Your task to perform on an android device: all mails in gmail Image 0: 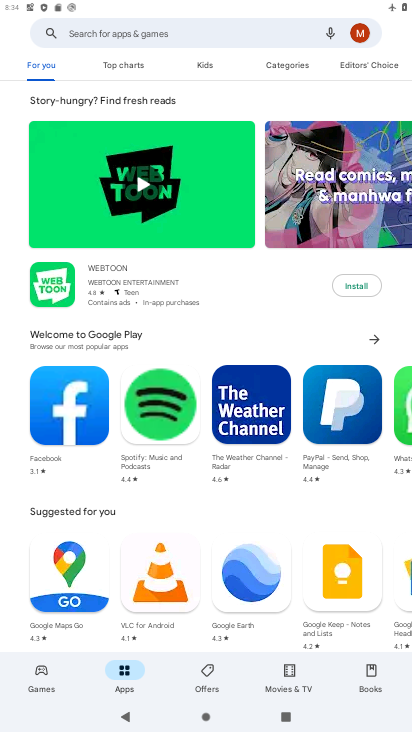
Step 0: press home button
Your task to perform on an android device: all mails in gmail Image 1: 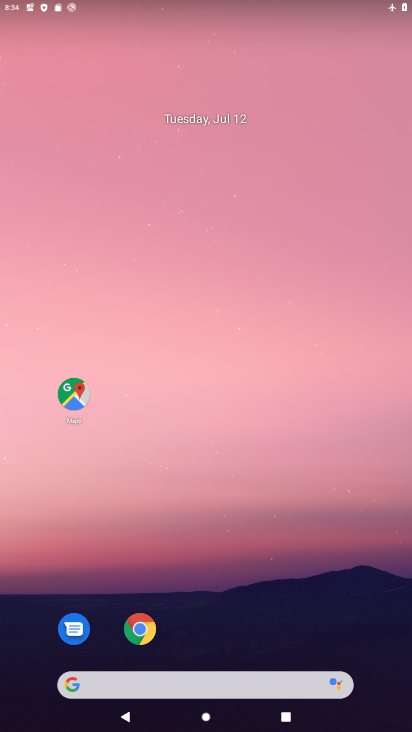
Step 1: drag from (225, 648) to (241, 273)
Your task to perform on an android device: all mails in gmail Image 2: 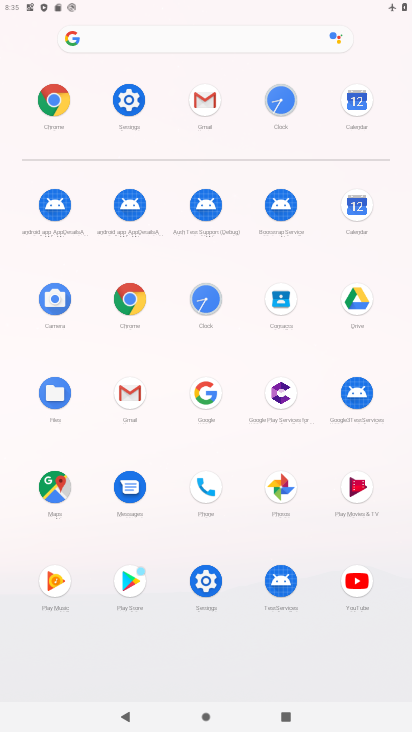
Step 2: click (213, 99)
Your task to perform on an android device: all mails in gmail Image 3: 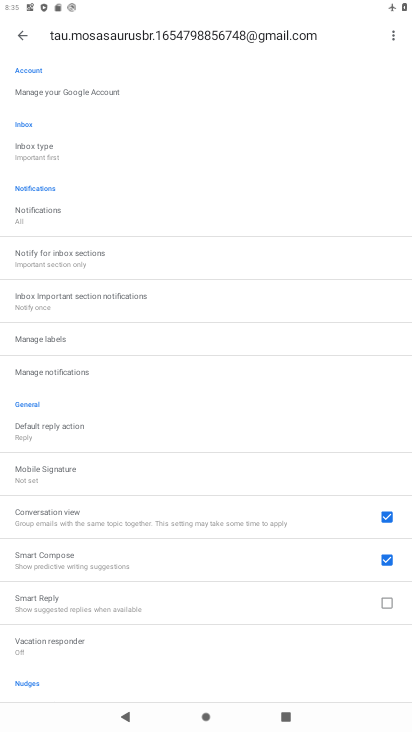
Step 3: click (28, 29)
Your task to perform on an android device: all mails in gmail Image 4: 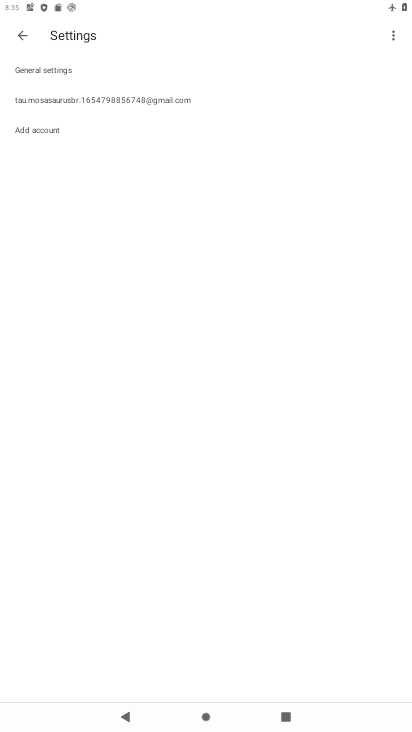
Step 4: click (21, 33)
Your task to perform on an android device: all mails in gmail Image 5: 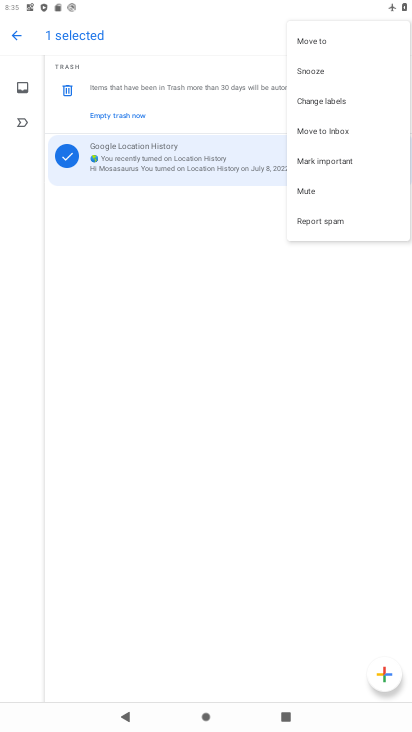
Step 5: click (97, 221)
Your task to perform on an android device: all mails in gmail Image 6: 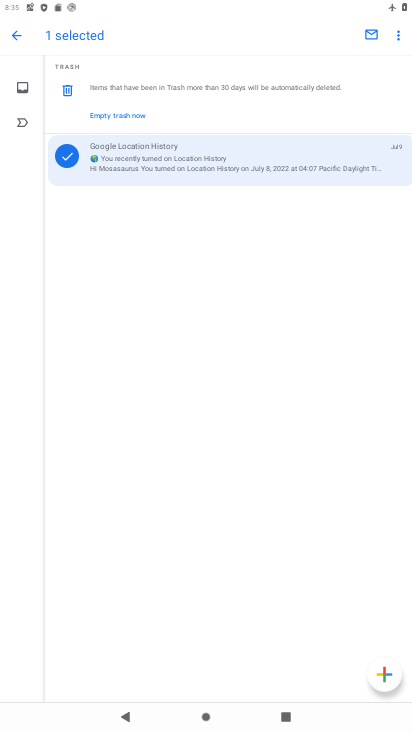
Step 6: click (19, 33)
Your task to perform on an android device: all mails in gmail Image 7: 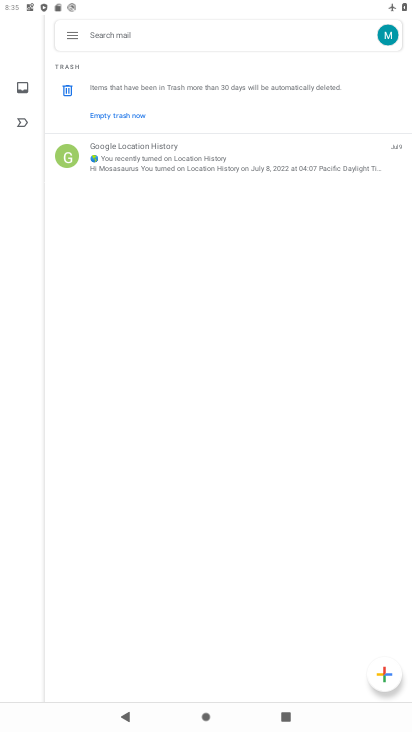
Step 7: click (68, 25)
Your task to perform on an android device: all mails in gmail Image 8: 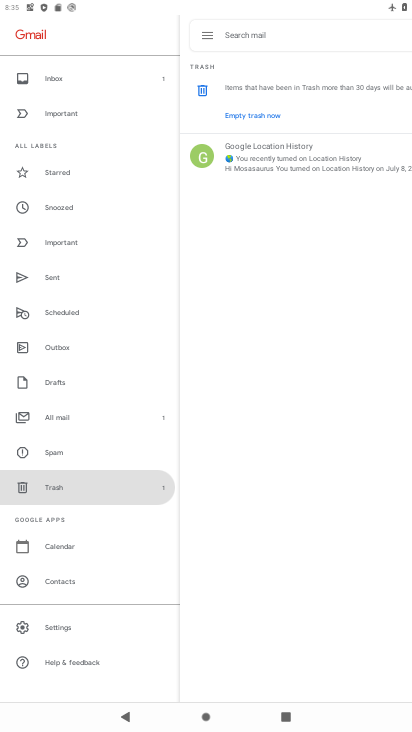
Step 8: click (47, 423)
Your task to perform on an android device: all mails in gmail Image 9: 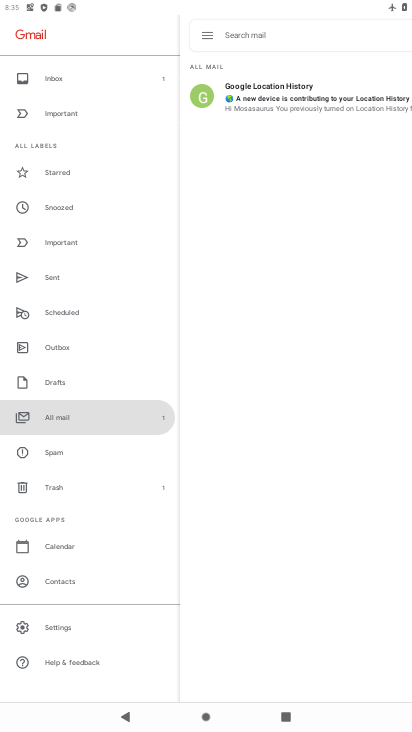
Step 9: task complete